Your task to perform on an android device: Search for vegetarian restaurants on Maps Image 0: 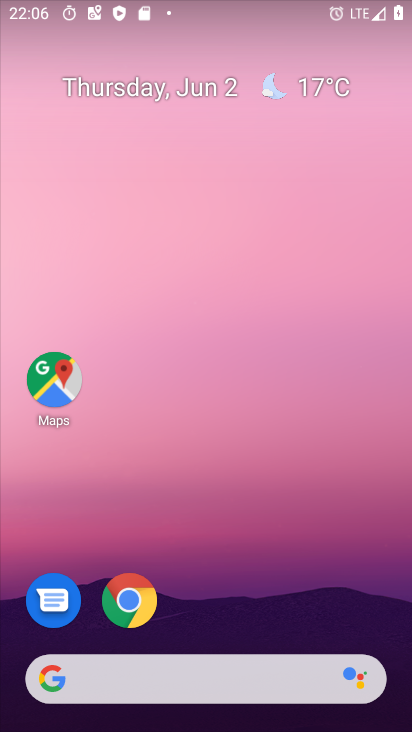
Step 0: drag from (357, 634) to (363, 330)
Your task to perform on an android device: Search for vegetarian restaurants on Maps Image 1: 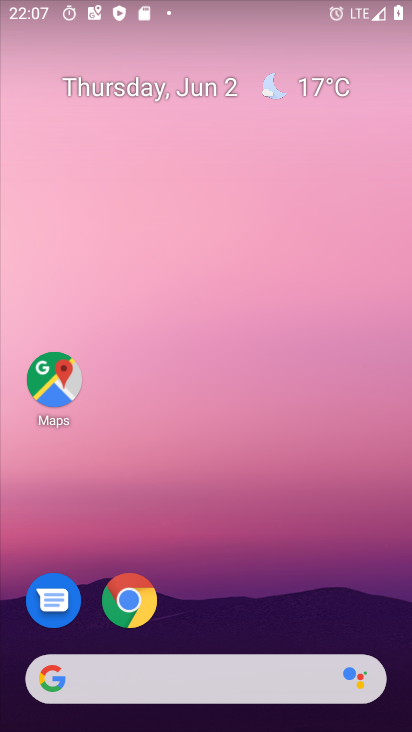
Step 1: drag from (321, 608) to (315, 305)
Your task to perform on an android device: Search for vegetarian restaurants on Maps Image 2: 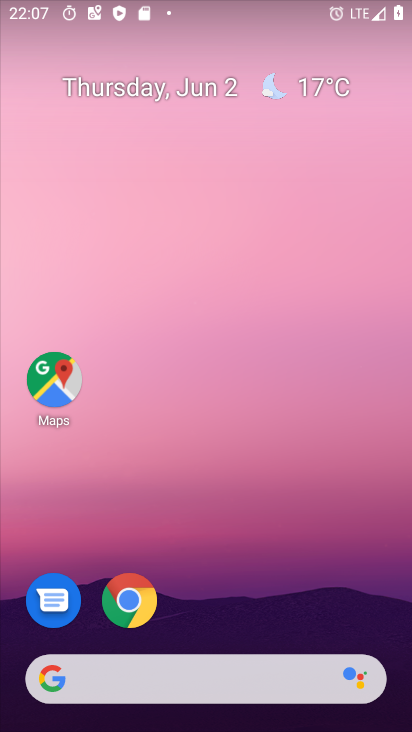
Step 2: drag from (364, 625) to (359, 276)
Your task to perform on an android device: Search for vegetarian restaurants on Maps Image 3: 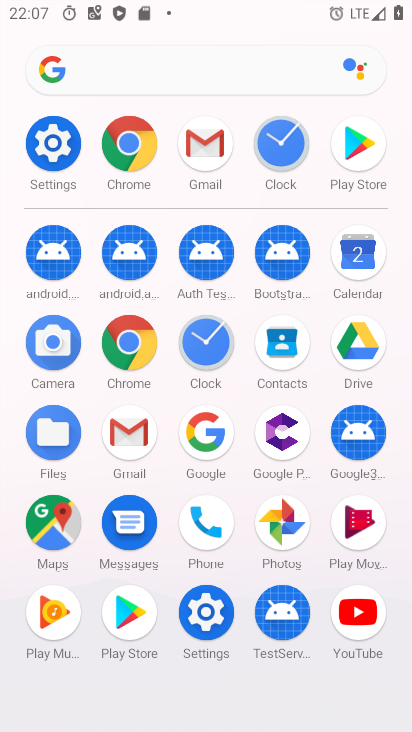
Step 3: click (51, 528)
Your task to perform on an android device: Search for vegetarian restaurants on Maps Image 4: 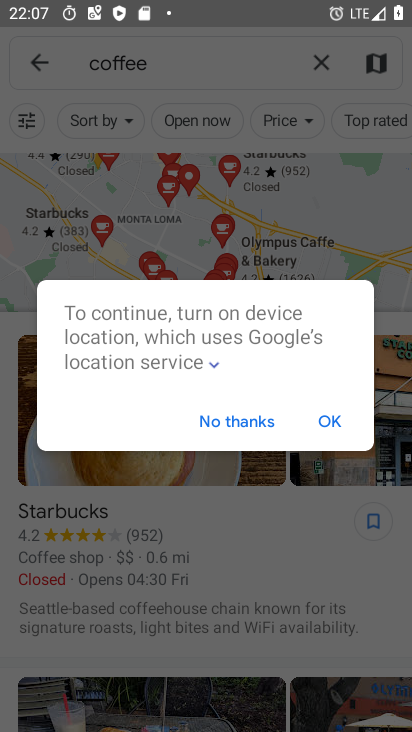
Step 4: click (323, 426)
Your task to perform on an android device: Search for vegetarian restaurants on Maps Image 5: 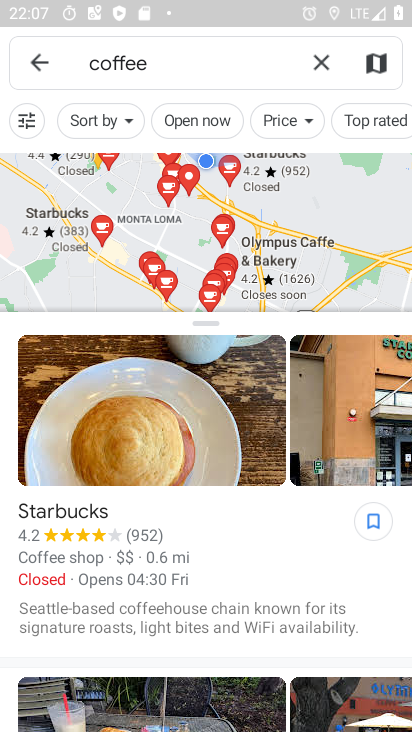
Step 5: click (324, 63)
Your task to perform on an android device: Search for vegetarian restaurants on Maps Image 6: 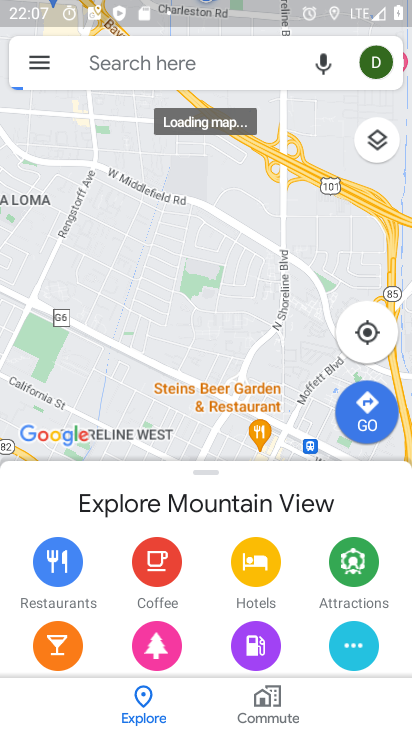
Step 6: click (236, 73)
Your task to perform on an android device: Search for vegetarian restaurants on Maps Image 7: 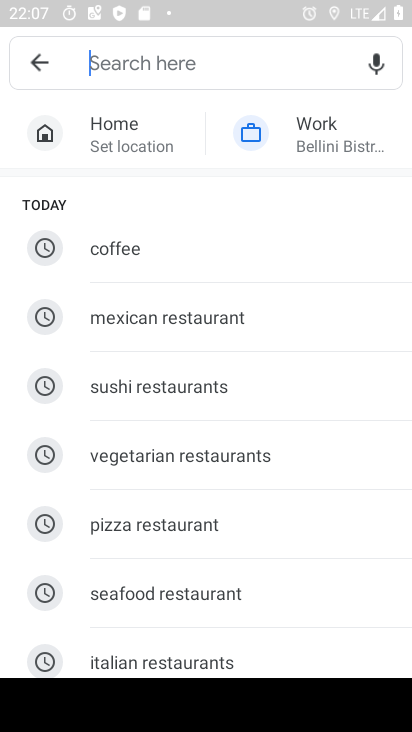
Step 7: type "vegetrain restaurants"
Your task to perform on an android device: Search for vegetarian restaurants on Maps Image 8: 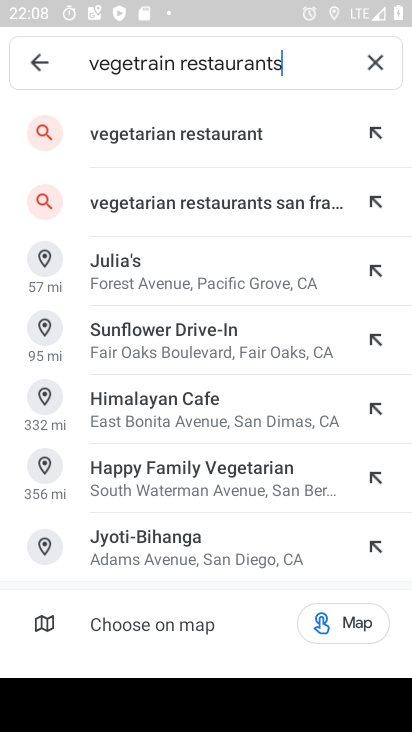
Step 8: click (203, 153)
Your task to perform on an android device: Search for vegetarian restaurants on Maps Image 9: 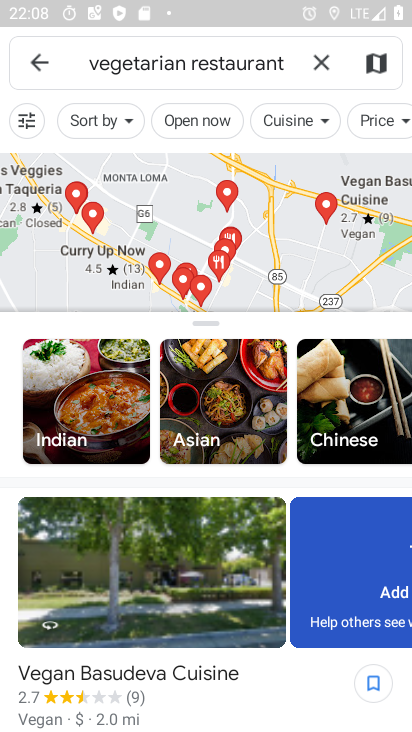
Step 9: task complete